Your task to perform on an android device: delete location history Image 0: 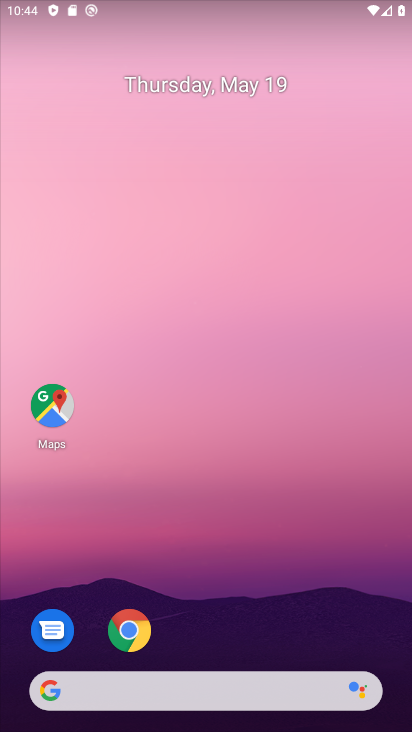
Step 0: drag from (213, 697) to (35, 72)
Your task to perform on an android device: delete location history Image 1: 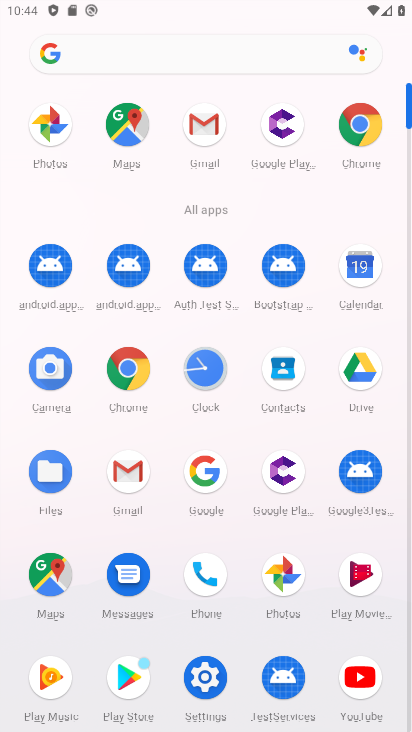
Step 1: drag from (277, 269) to (275, 27)
Your task to perform on an android device: delete location history Image 2: 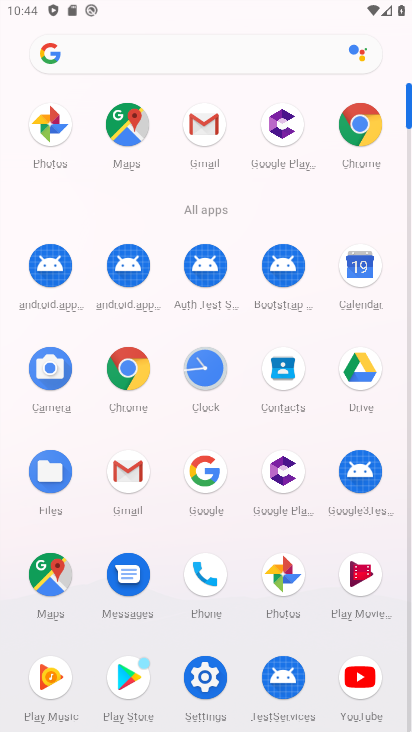
Step 2: click (205, 677)
Your task to perform on an android device: delete location history Image 3: 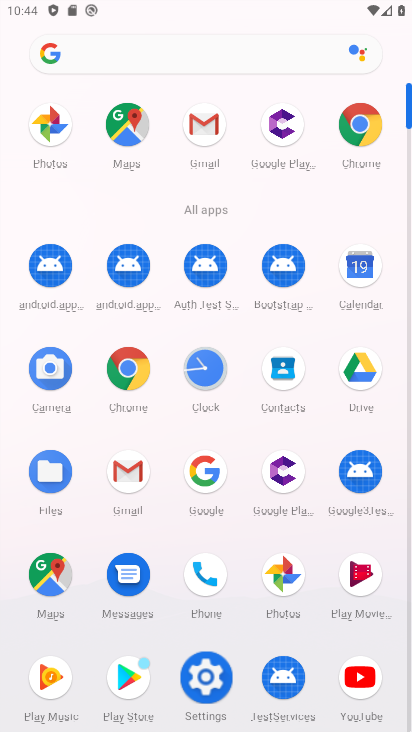
Step 3: click (205, 677)
Your task to perform on an android device: delete location history Image 4: 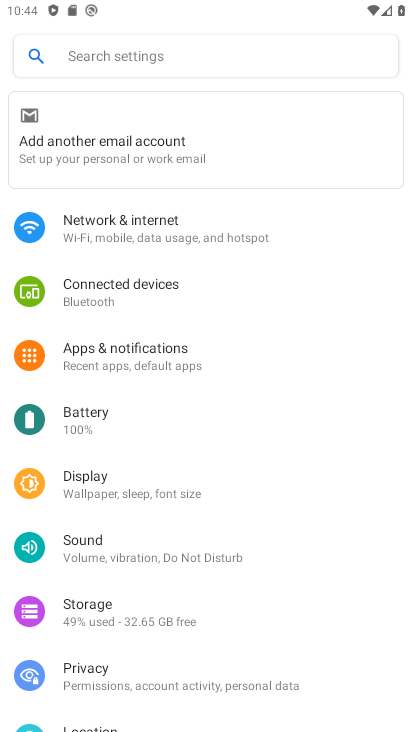
Step 4: drag from (153, 547) to (187, 119)
Your task to perform on an android device: delete location history Image 5: 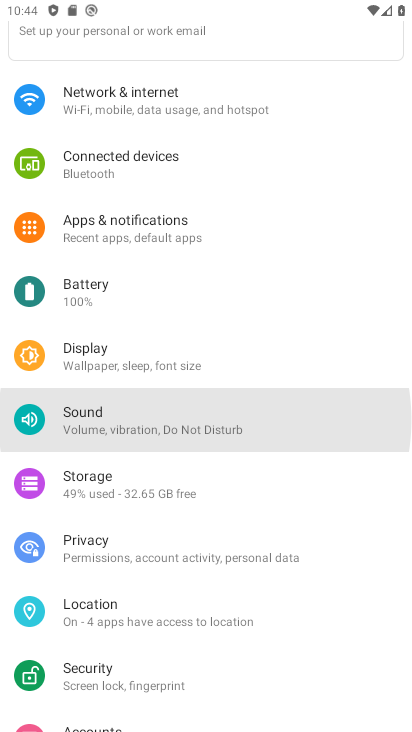
Step 5: drag from (239, 441) to (232, 120)
Your task to perform on an android device: delete location history Image 6: 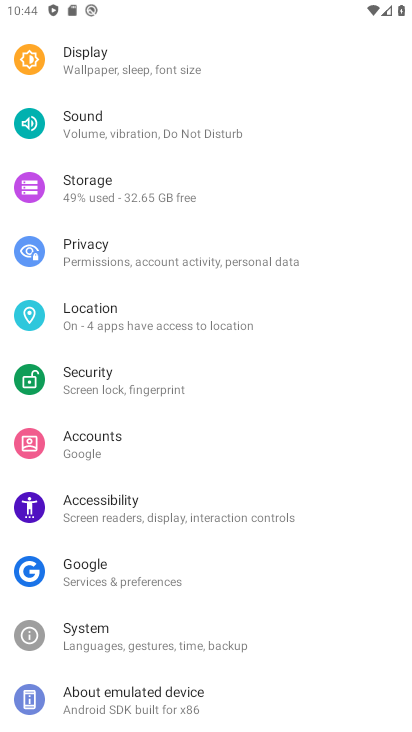
Step 6: click (93, 610)
Your task to perform on an android device: delete location history Image 7: 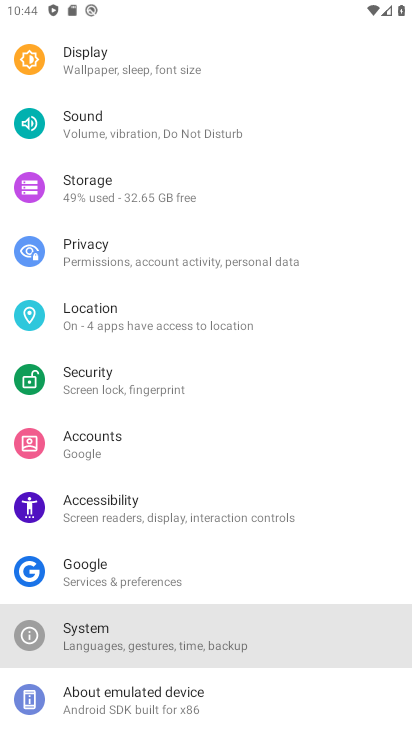
Step 7: click (97, 606)
Your task to perform on an android device: delete location history Image 8: 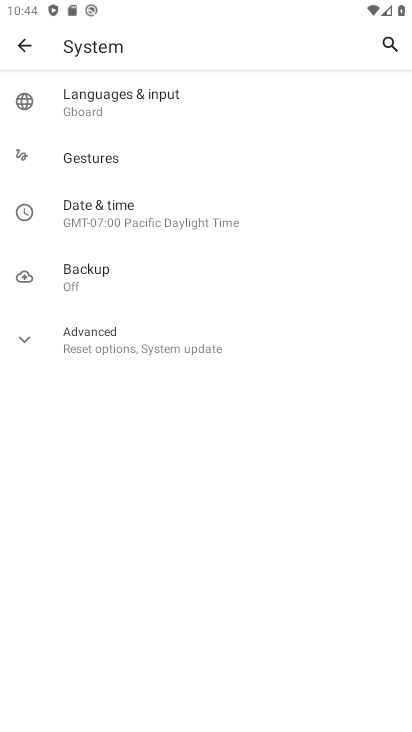
Step 8: click (16, 32)
Your task to perform on an android device: delete location history Image 9: 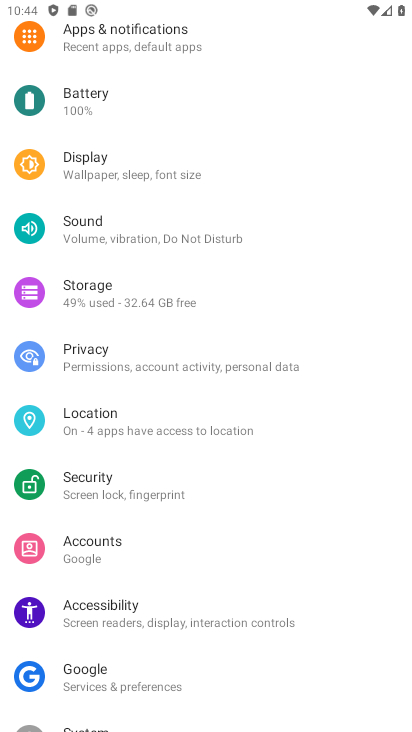
Step 9: click (102, 307)
Your task to perform on an android device: delete location history Image 10: 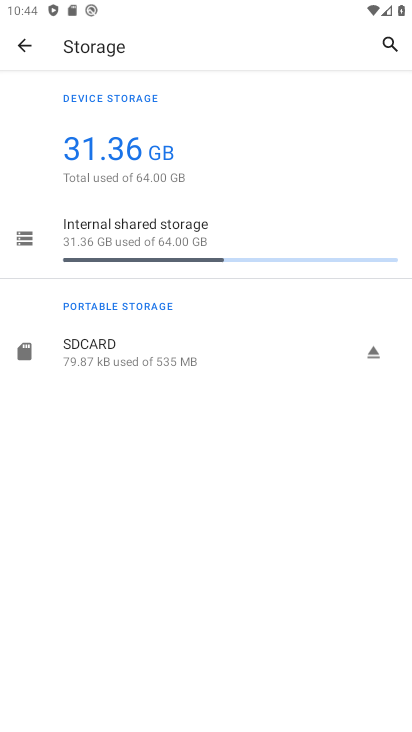
Step 10: click (8, 36)
Your task to perform on an android device: delete location history Image 11: 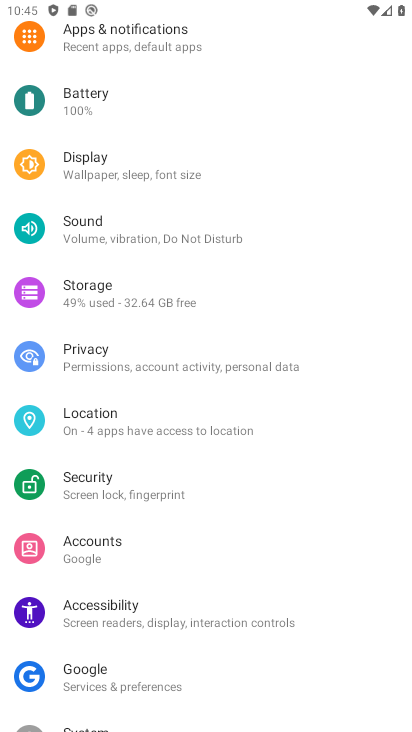
Step 11: click (110, 413)
Your task to perform on an android device: delete location history Image 12: 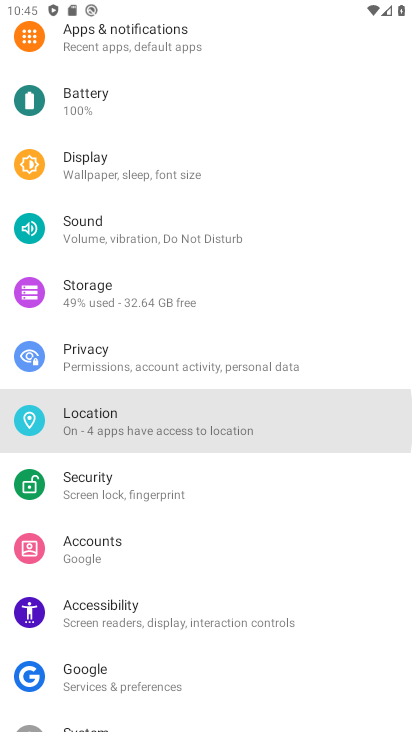
Step 12: click (110, 413)
Your task to perform on an android device: delete location history Image 13: 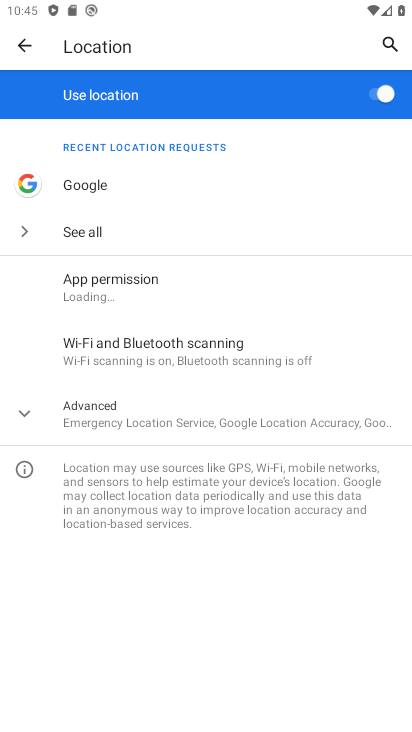
Step 13: click (373, 95)
Your task to perform on an android device: delete location history Image 14: 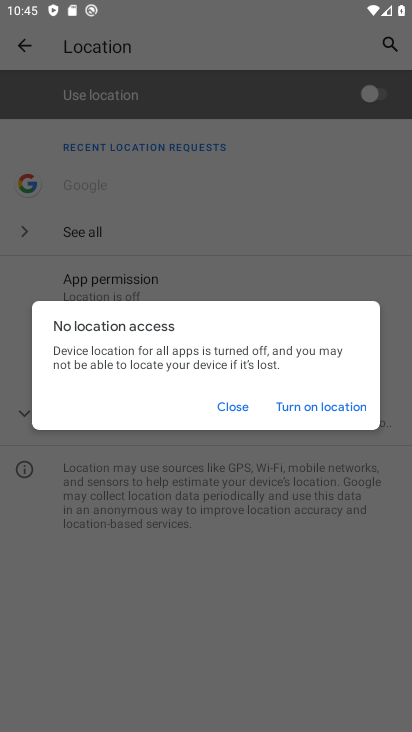
Step 14: task complete